Your task to perform on an android device: turn on location history Image 0: 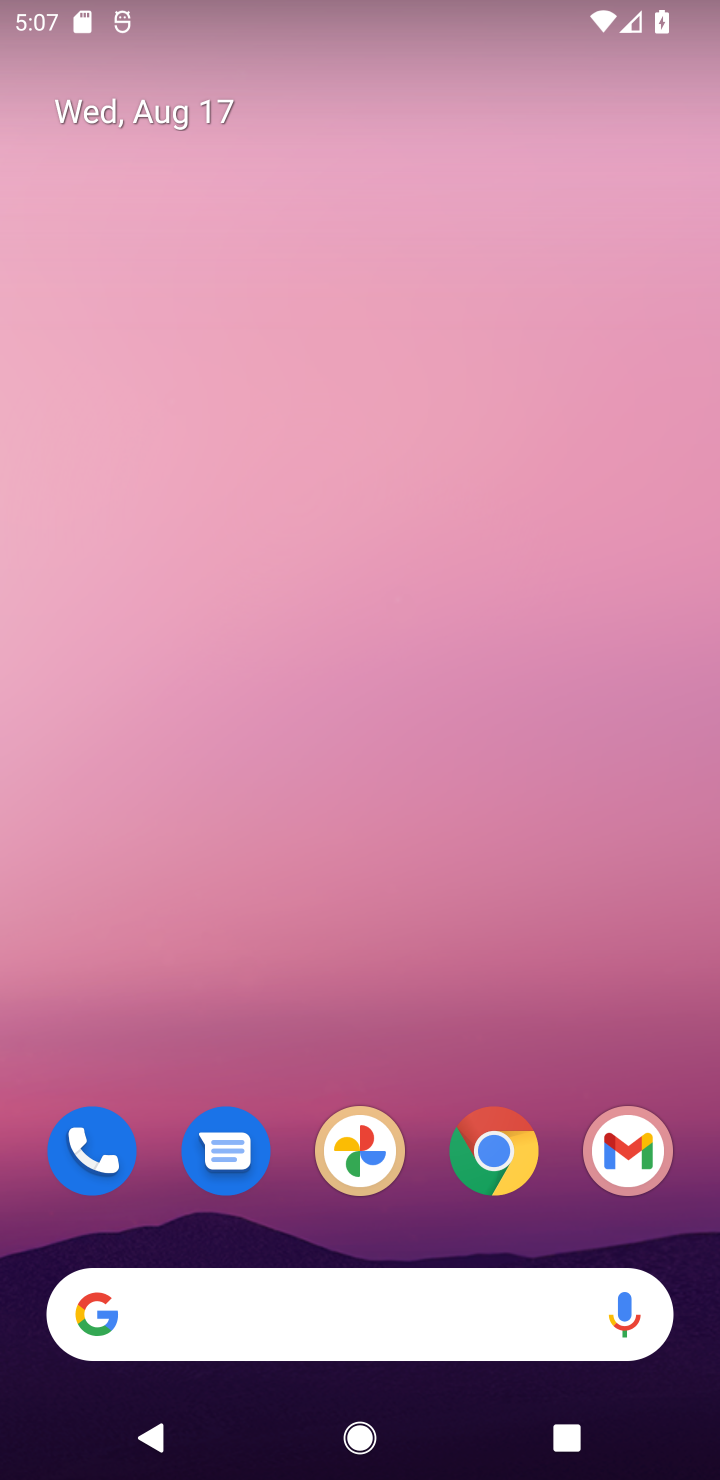
Step 0: drag from (442, 1216) to (451, 0)
Your task to perform on an android device: turn on location history Image 1: 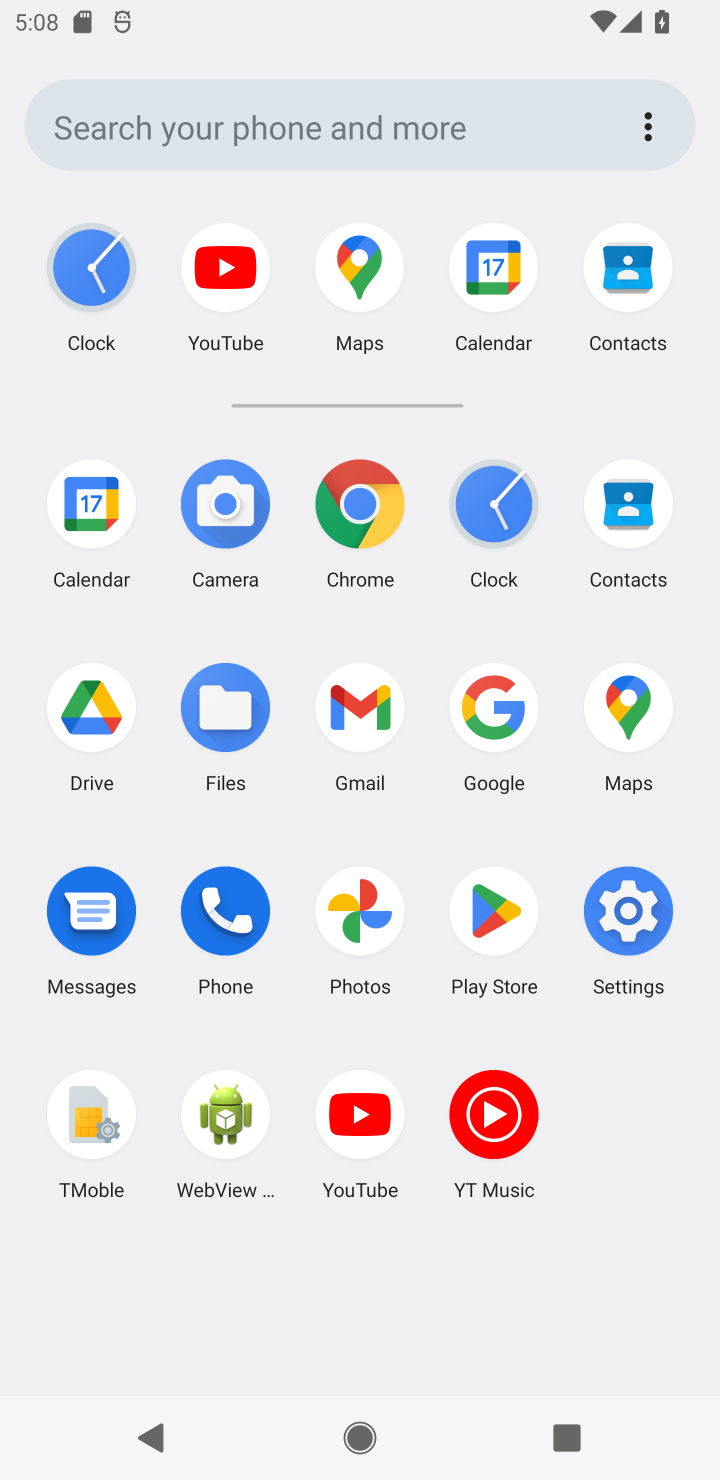
Step 1: click (641, 923)
Your task to perform on an android device: turn on location history Image 2: 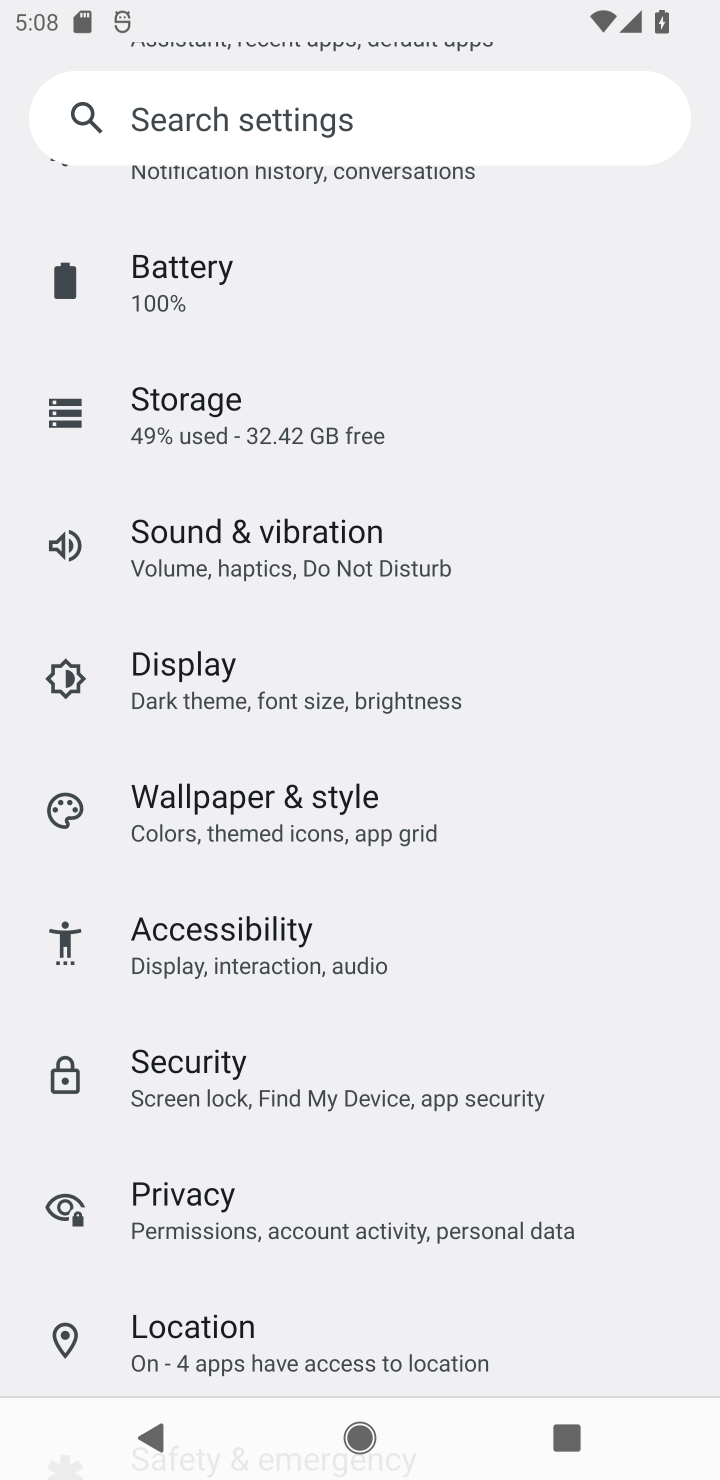
Step 2: click (361, 1320)
Your task to perform on an android device: turn on location history Image 3: 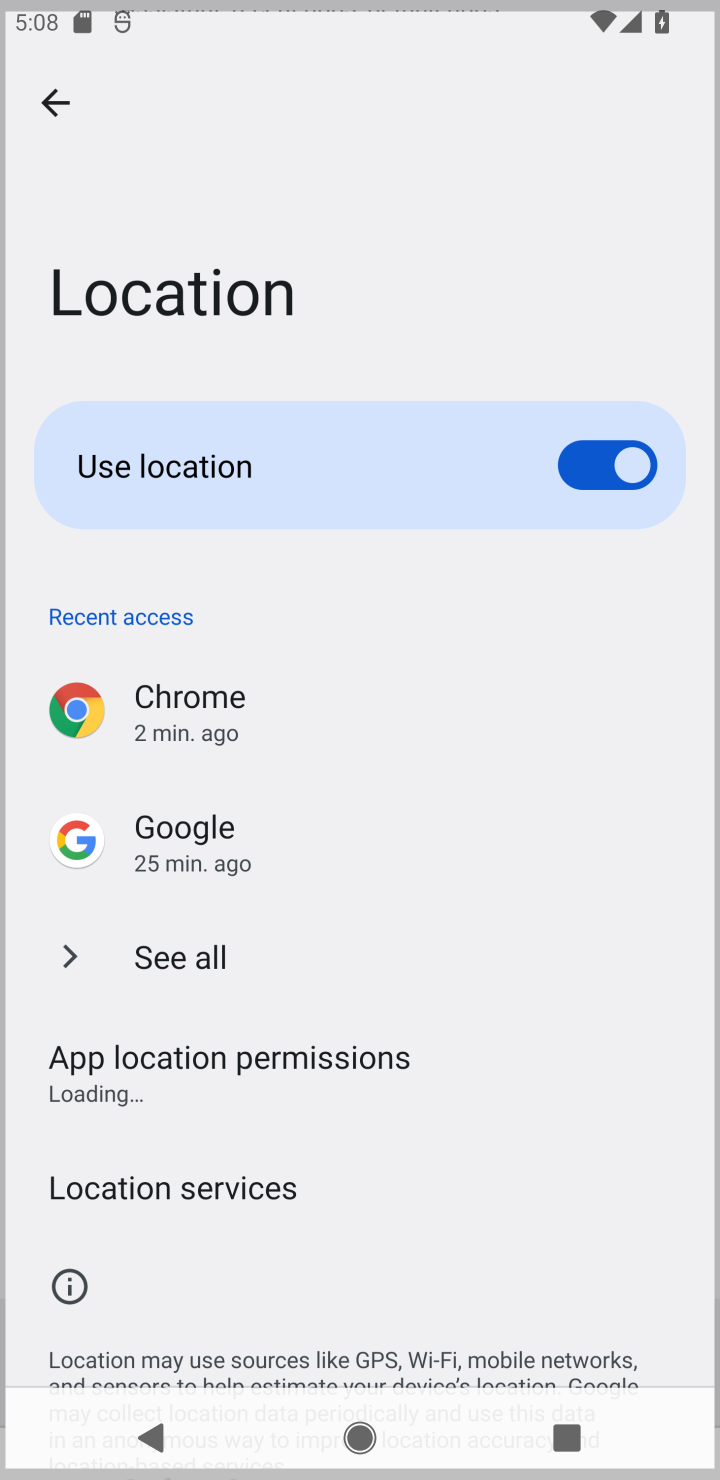
Step 3: task complete